Your task to perform on an android device: Go to eBay Image 0: 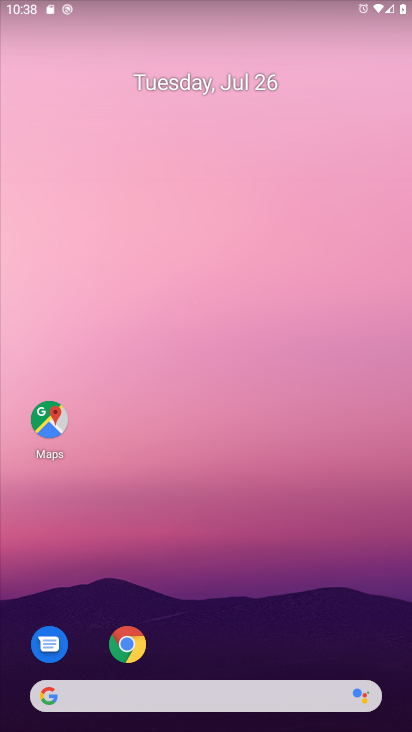
Step 0: click (118, 651)
Your task to perform on an android device: Go to eBay Image 1: 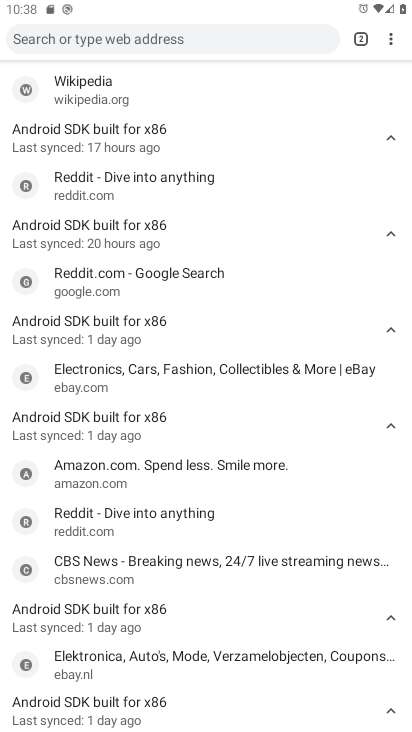
Step 1: click (120, 372)
Your task to perform on an android device: Go to eBay Image 2: 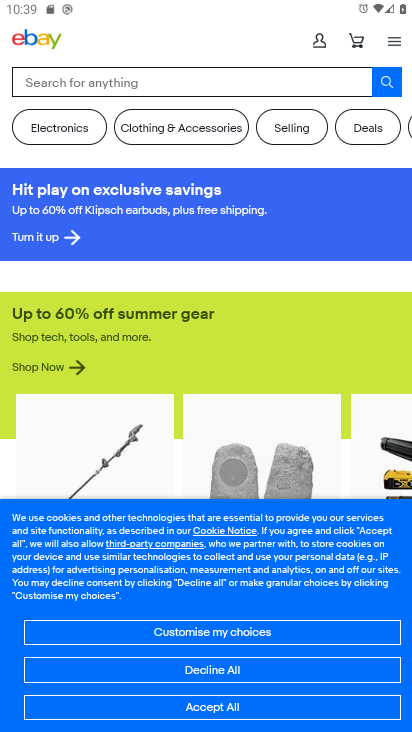
Step 2: task complete